Your task to perform on an android device: Turn off the flashlight Image 0: 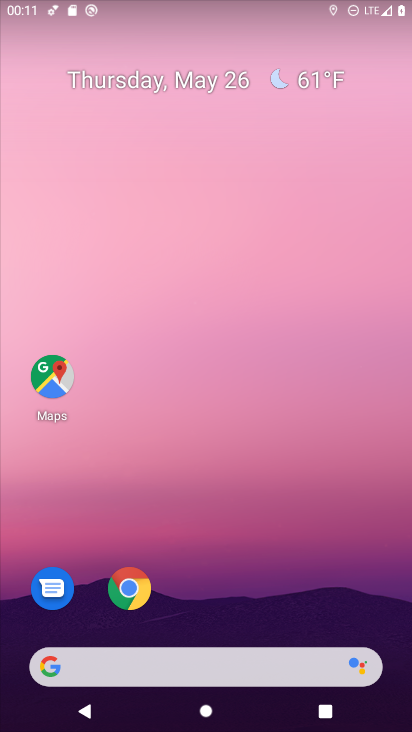
Step 0: drag from (287, 537) to (158, 105)
Your task to perform on an android device: Turn off the flashlight Image 1: 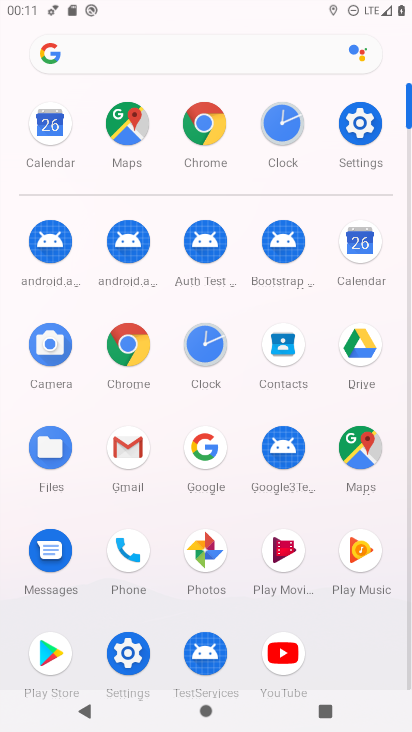
Step 1: click (349, 139)
Your task to perform on an android device: Turn off the flashlight Image 2: 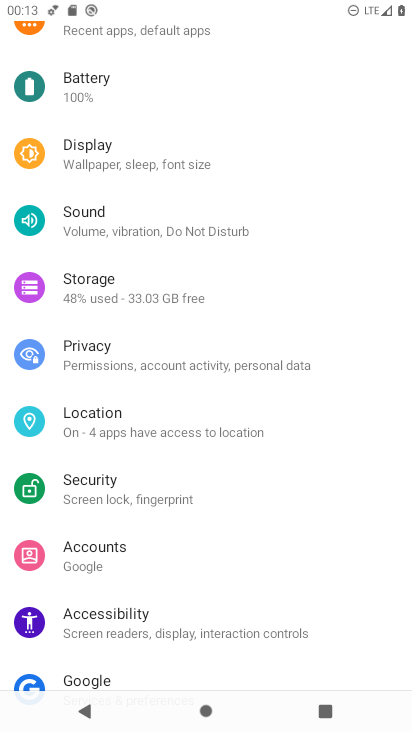
Step 2: drag from (208, 440) to (126, 162)
Your task to perform on an android device: Turn off the flashlight Image 3: 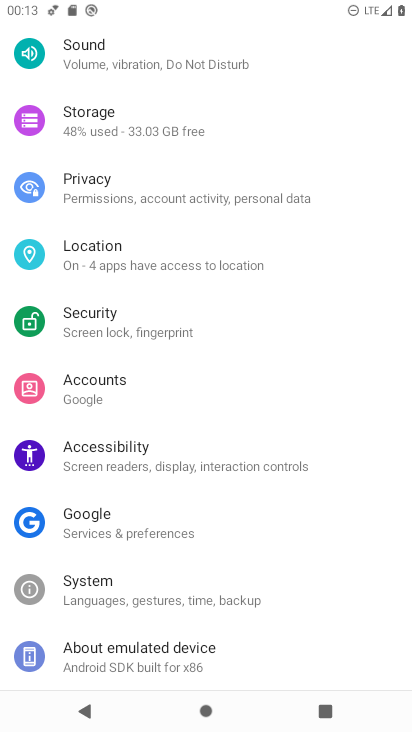
Step 3: click (91, 178)
Your task to perform on an android device: Turn off the flashlight Image 4: 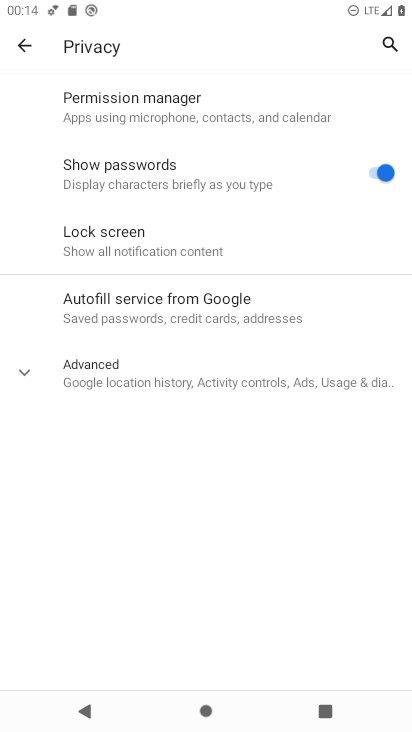
Step 4: click (85, 95)
Your task to perform on an android device: Turn off the flashlight Image 5: 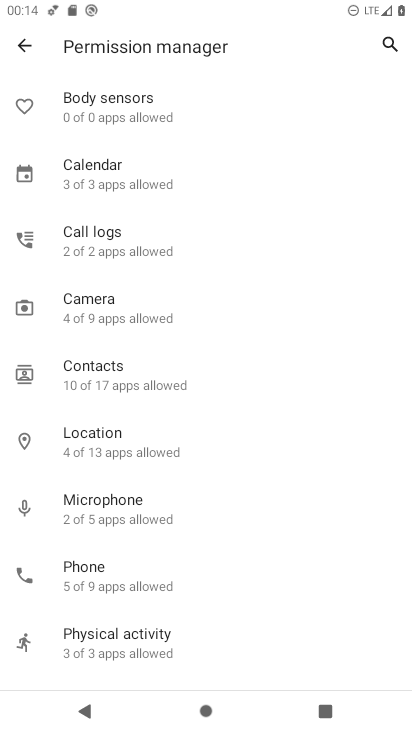
Step 5: task complete